Your task to perform on an android device: set the timer Image 0: 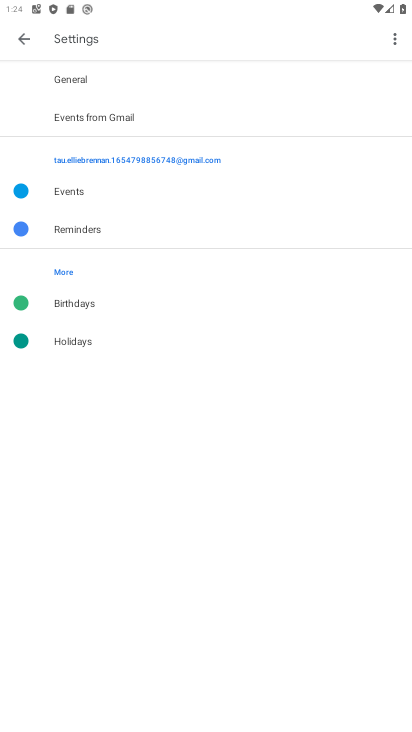
Step 0: press home button
Your task to perform on an android device: set the timer Image 1: 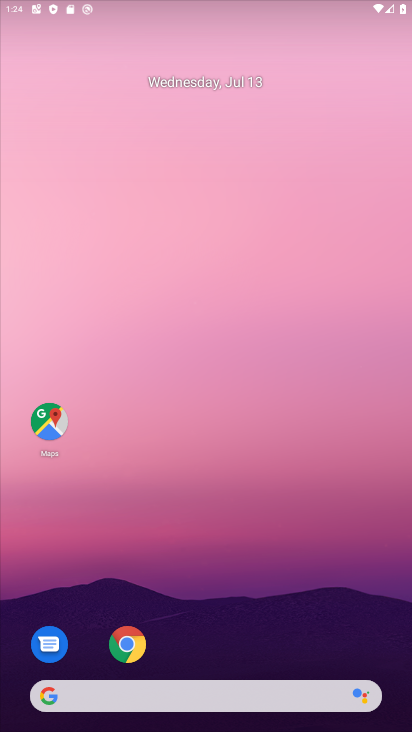
Step 1: drag from (286, 613) to (247, 145)
Your task to perform on an android device: set the timer Image 2: 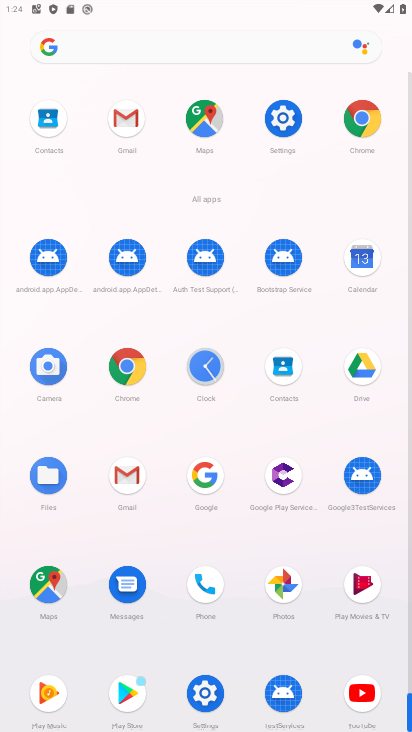
Step 2: click (201, 365)
Your task to perform on an android device: set the timer Image 3: 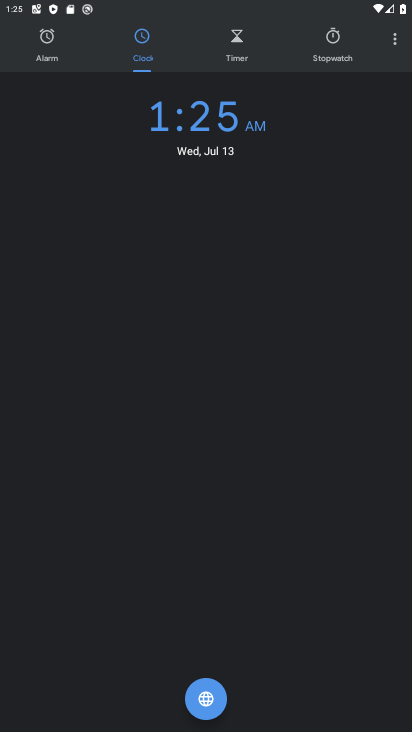
Step 3: click (232, 40)
Your task to perform on an android device: set the timer Image 4: 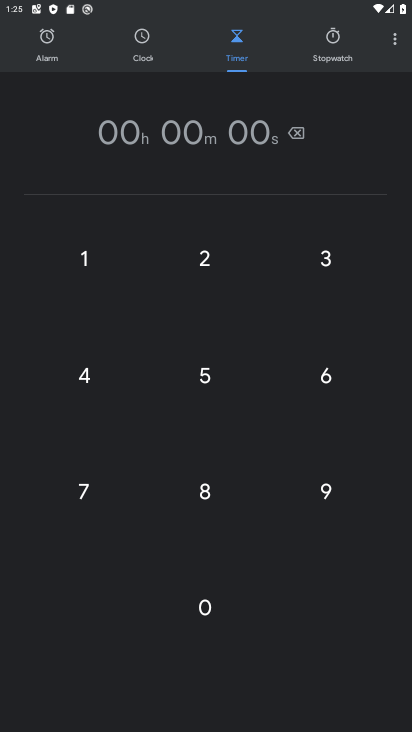
Step 4: click (205, 493)
Your task to perform on an android device: set the timer Image 5: 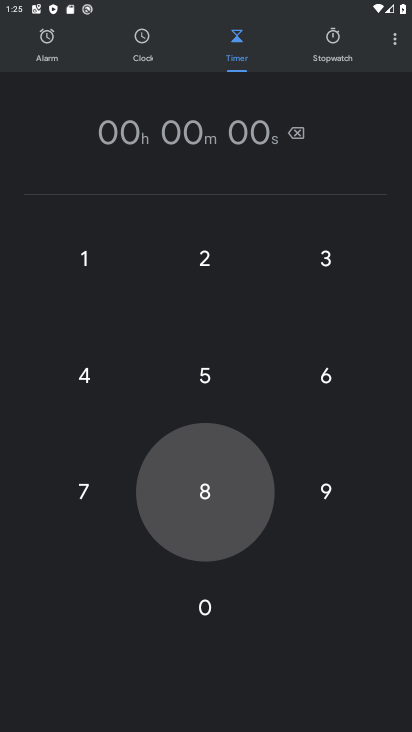
Step 5: click (204, 493)
Your task to perform on an android device: set the timer Image 6: 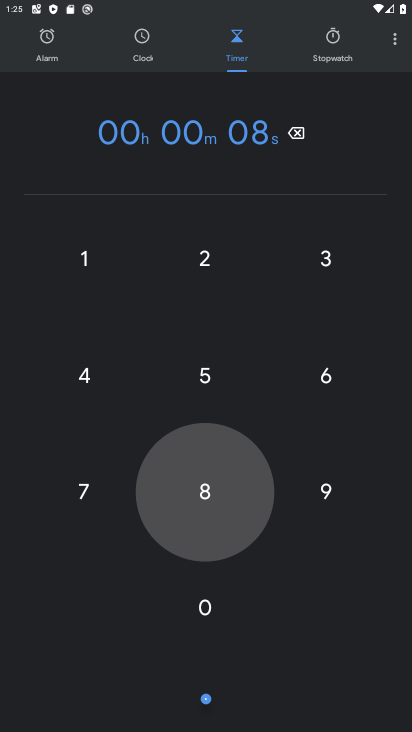
Step 6: click (202, 493)
Your task to perform on an android device: set the timer Image 7: 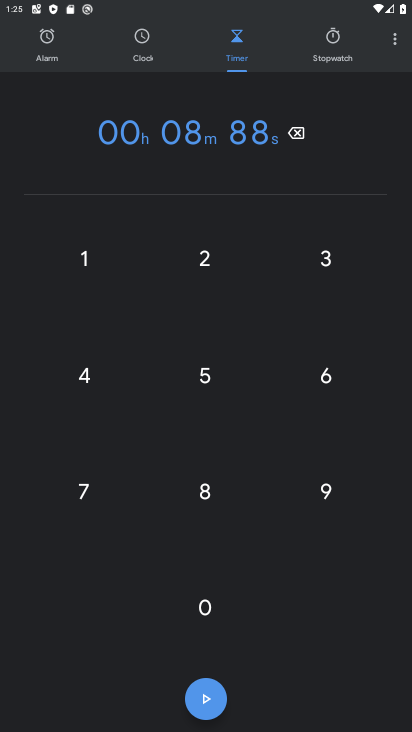
Step 7: click (201, 378)
Your task to perform on an android device: set the timer Image 8: 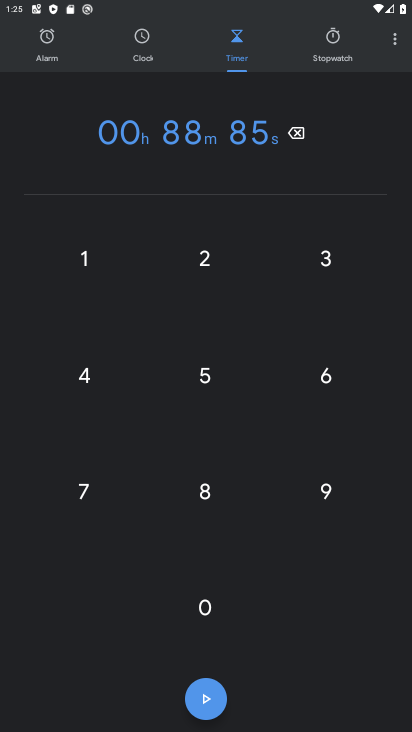
Step 8: click (325, 384)
Your task to perform on an android device: set the timer Image 9: 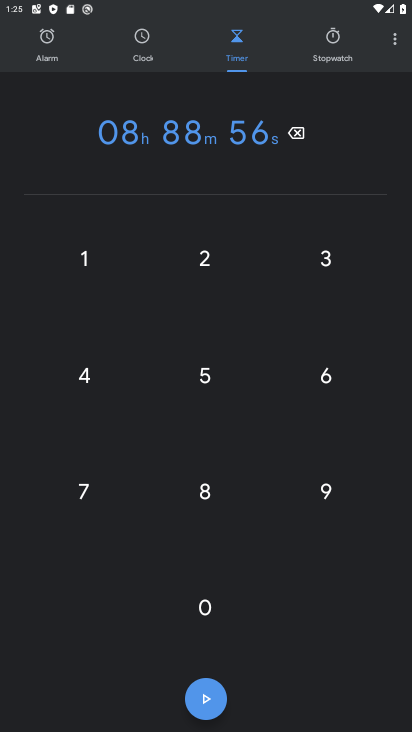
Step 9: click (212, 706)
Your task to perform on an android device: set the timer Image 10: 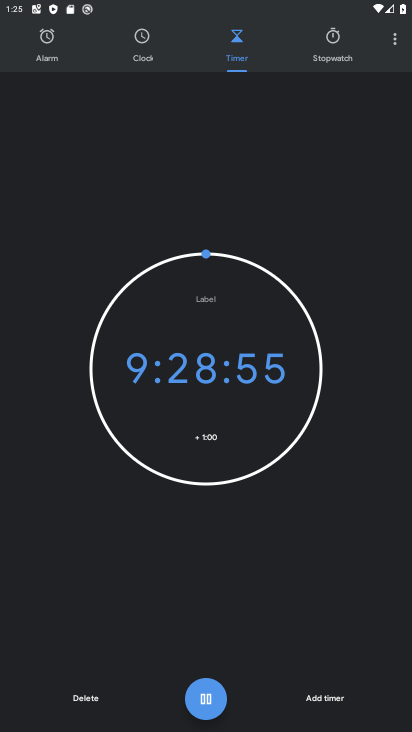
Step 10: click (209, 704)
Your task to perform on an android device: set the timer Image 11: 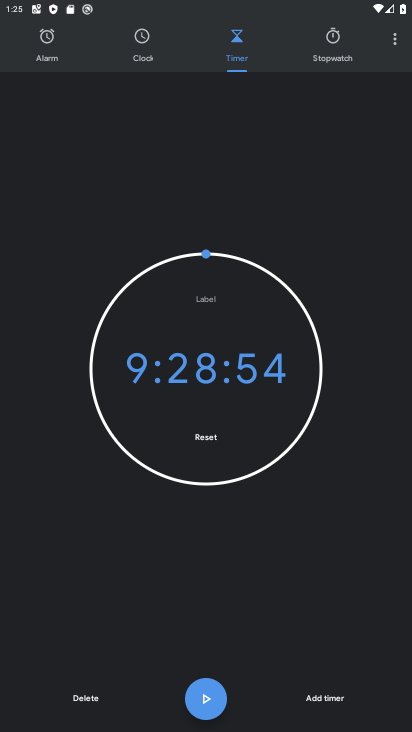
Step 11: task complete